Your task to perform on an android device: set the stopwatch Image 0: 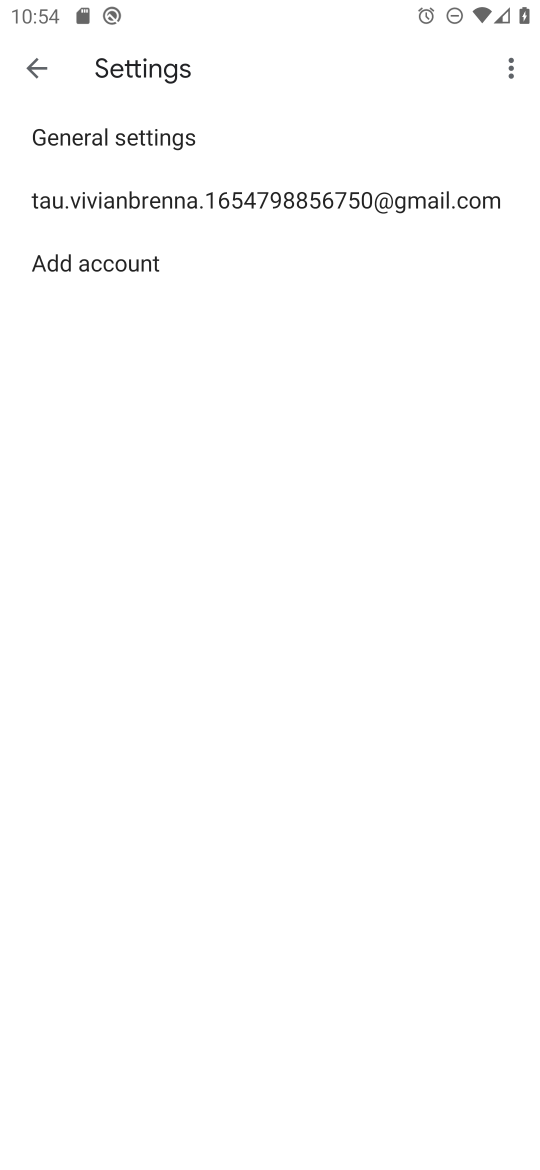
Step 0: press home button
Your task to perform on an android device: set the stopwatch Image 1: 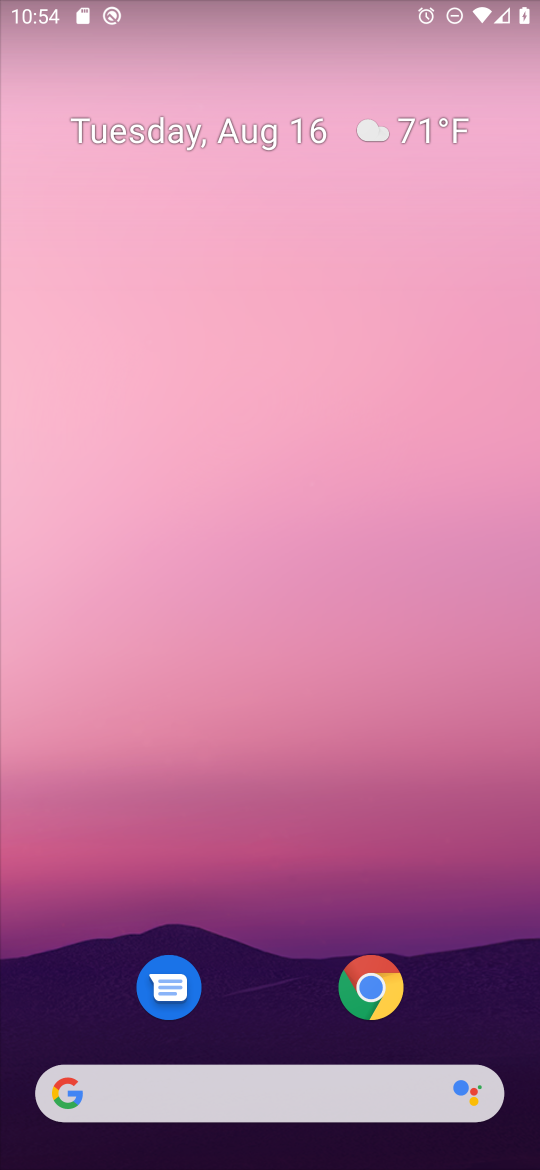
Step 1: drag from (33, 1132) to (168, 447)
Your task to perform on an android device: set the stopwatch Image 2: 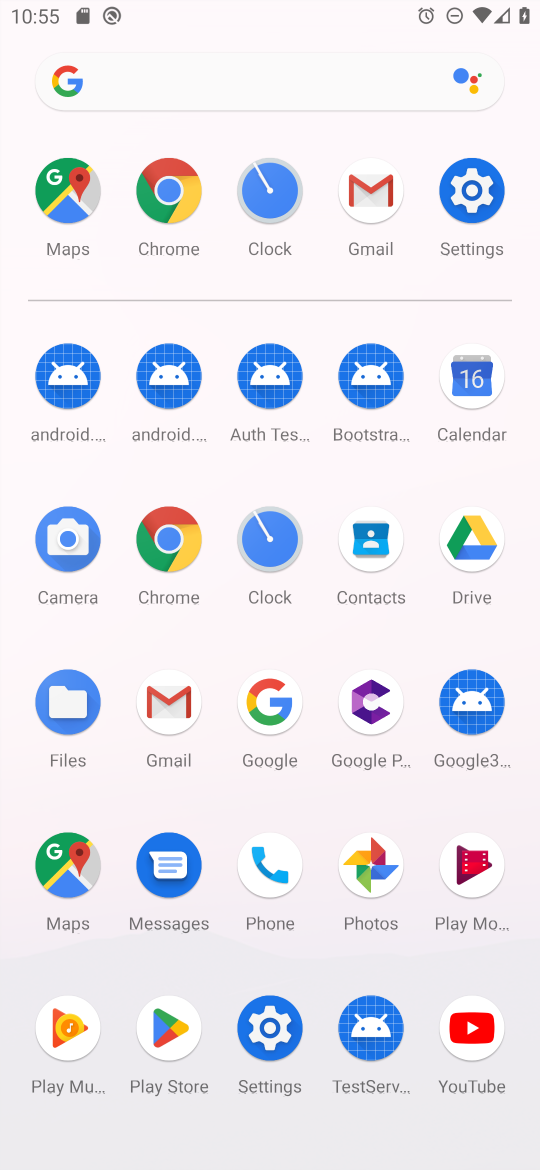
Step 2: click (256, 539)
Your task to perform on an android device: set the stopwatch Image 3: 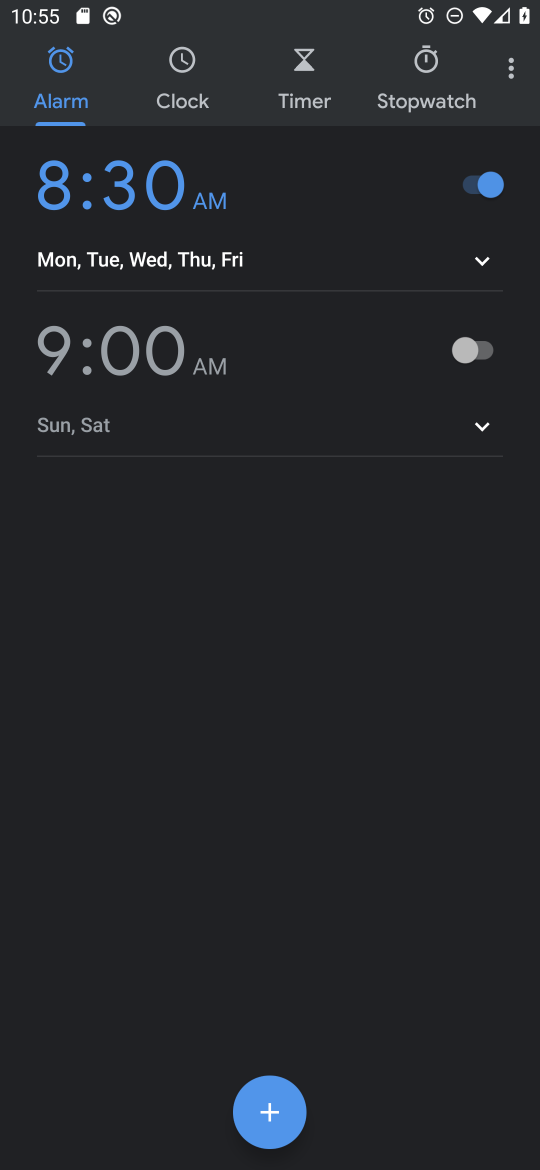
Step 3: click (429, 76)
Your task to perform on an android device: set the stopwatch Image 4: 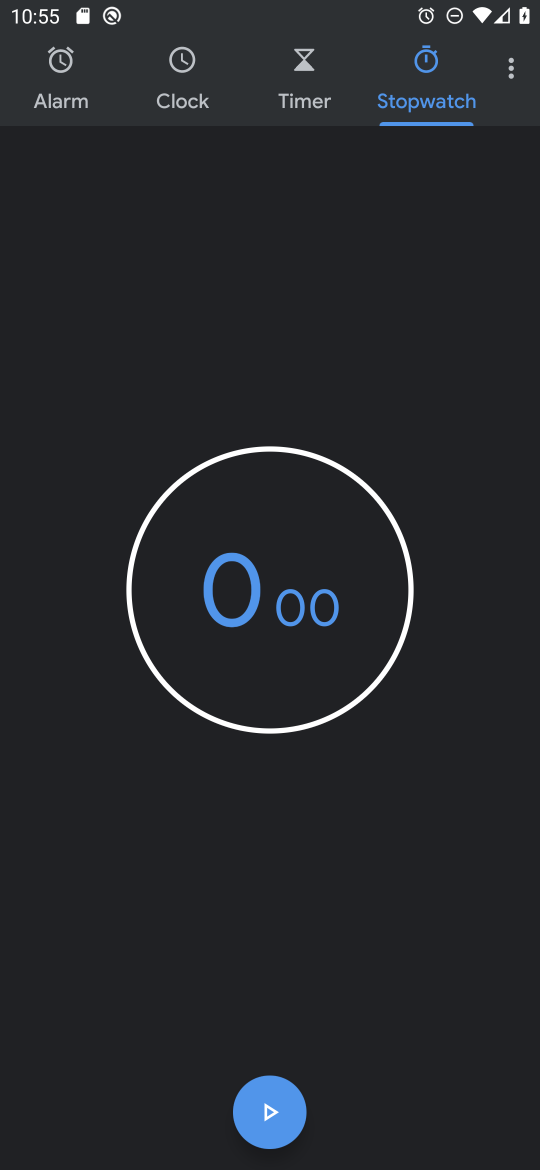
Step 4: click (271, 1103)
Your task to perform on an android device: set the stopwatch Image 5: 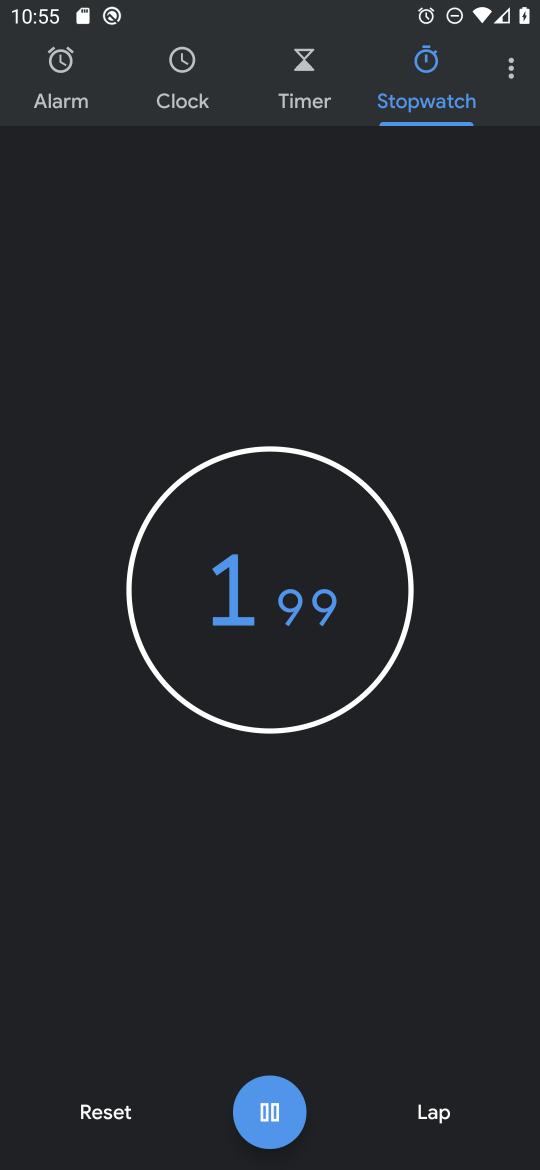
Step 5: click (256, 1113)
Your task to perform on an android device: set the stopwatch Image 6: 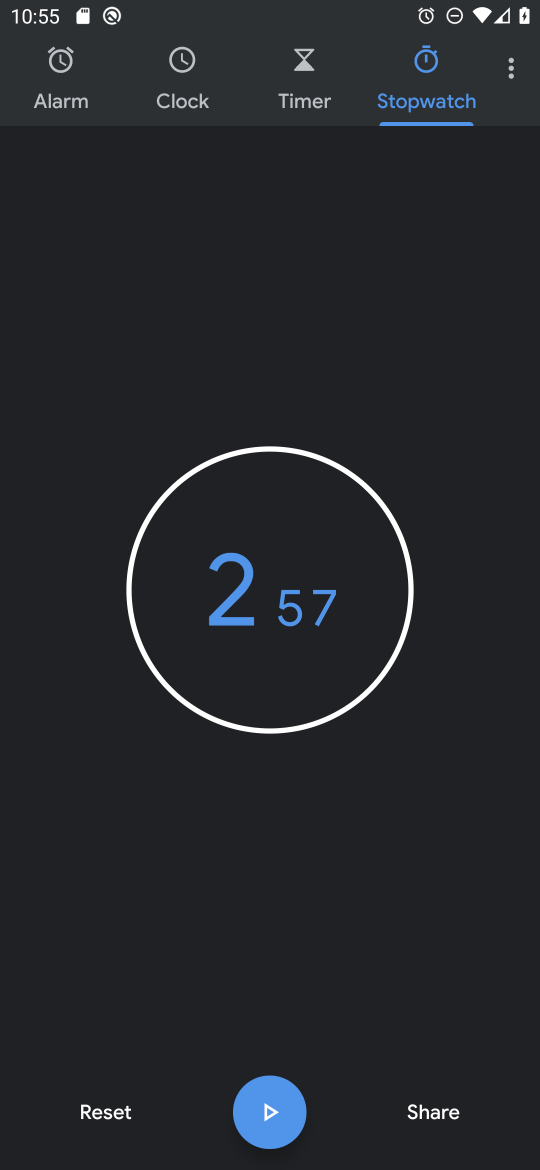
Step 6: task complete